Your task to perform on an android device: find which apps use the phone's location Image 0: 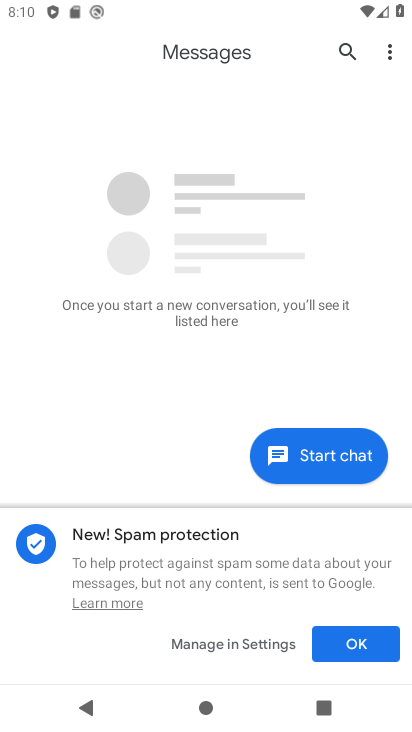
Step 0: press home button
Your task to perform on an android device: find which apps use the phone's location Image 1: 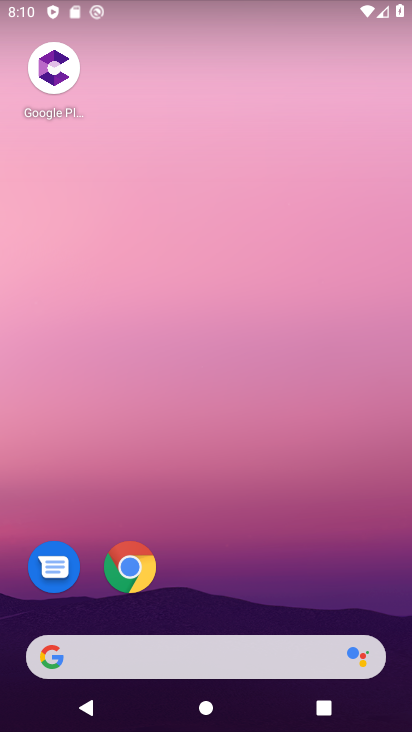
Step 1: drag from (200, 591) to (192, 72)
Your task to perform on an android device: find which apps use the phone's location Image 2: 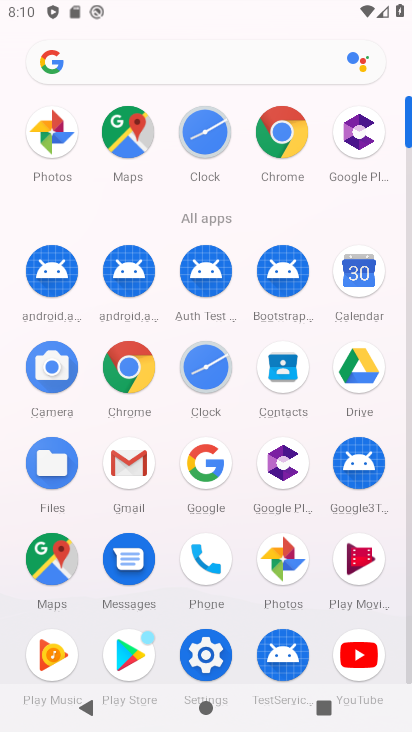
Step 2: click (212, 637)
Your task to perform on an android device: find which apps use the phone's location Image 3: 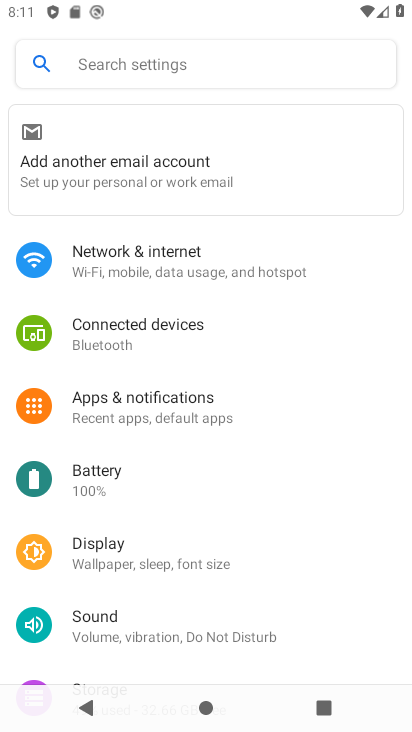
Step 3: drag from (113, 638) to (153, 203)
Your task to perform on an android device: find which apps use the phone's location Image 4: 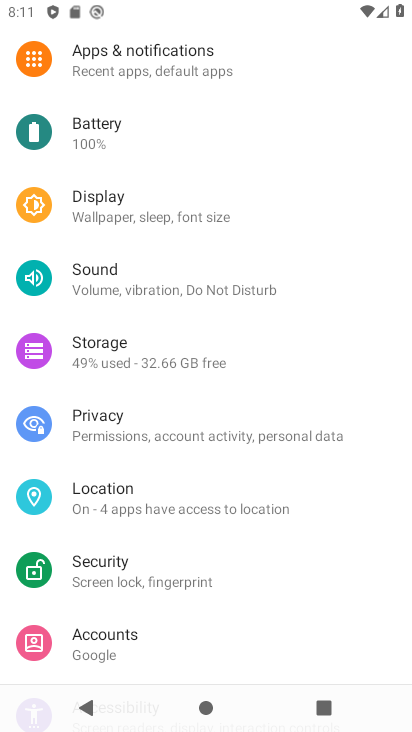
Step 4: click (121, 486)
Your task to perform on an android device: find which apps use the phone's location Image 5: 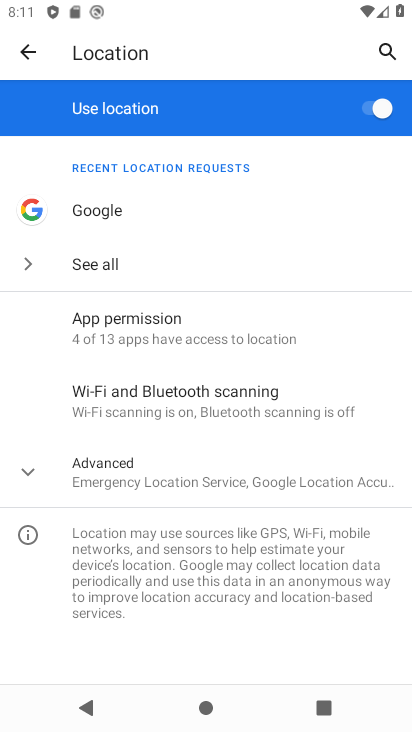
Step 5: click (99, 262)
Your task to perform on an android device: find which apps use the phone's location Image 6: 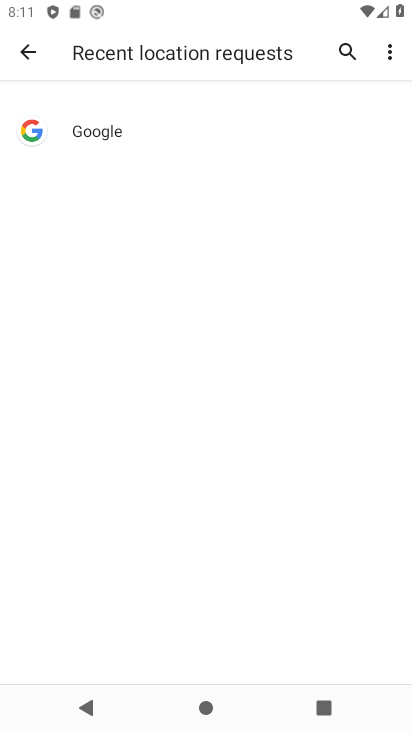
Step 6: task complete